Your task to perform on an android device: turn notification dots off Image 0: 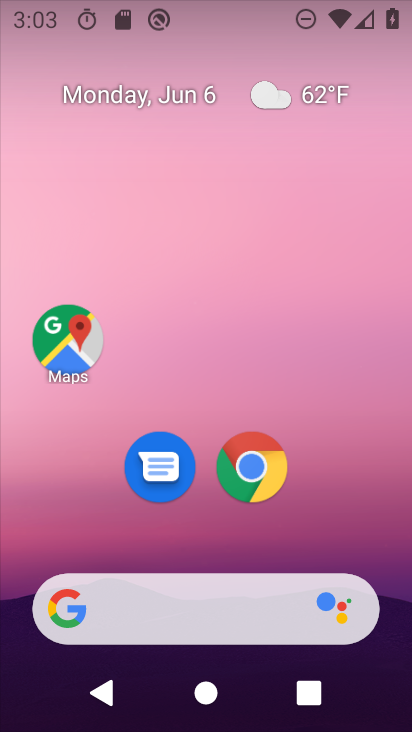
Step 0: drag from (208, 546) to (253, 123)
Your task to perform on an android device: turn notification dots off Image 1: 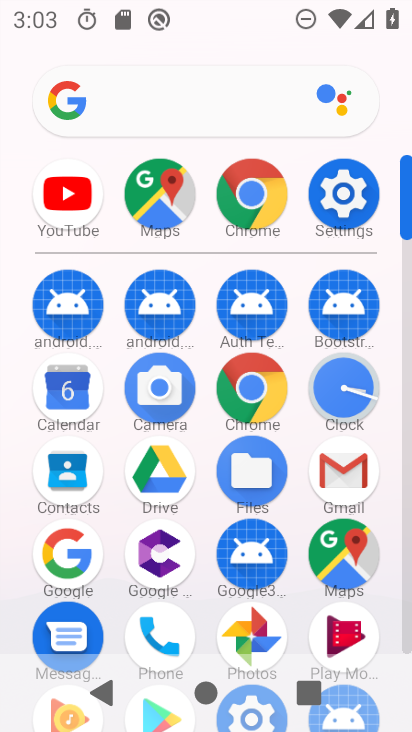
Step 1: click (257, 619)
Your task to perform on an android device: turn notification dots off Image 2: 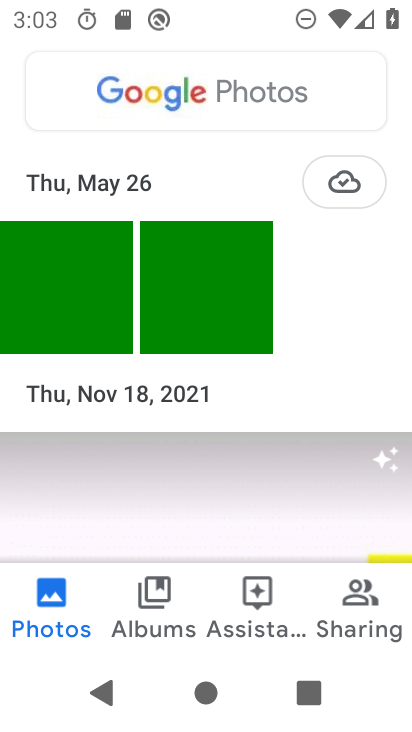
Step 2: press home button
Your task to perform on an android device: turn notification dots off Image 3: 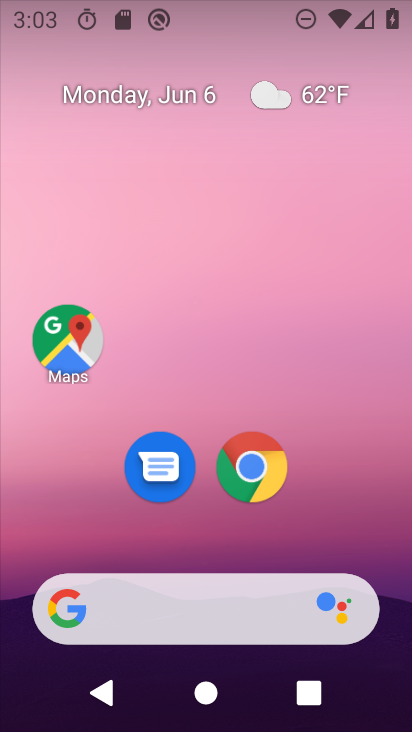
Step 3: drag from (267, 539) to (261, 54)
Your task to perform on an android device: turn notification dots off Image 4: 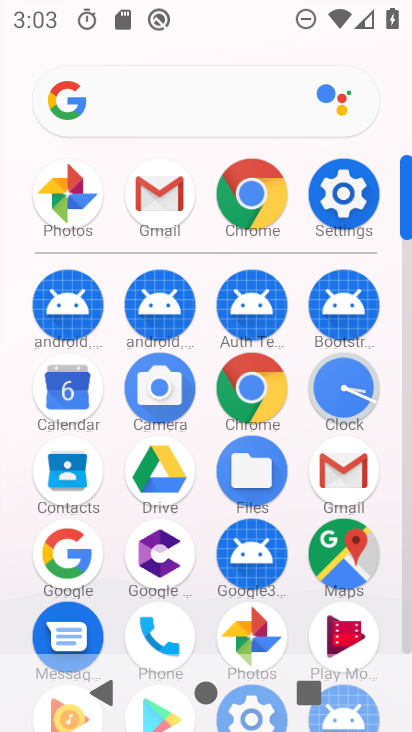
Step 4: click (349, 207)
Your task to perform on an android device: turn notification dots off Image 5: 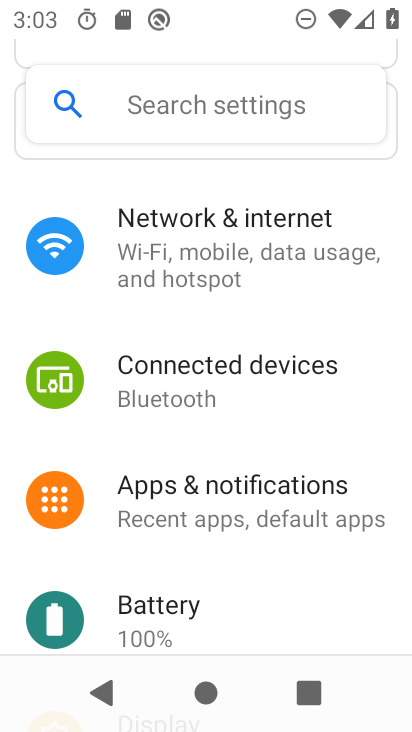
Step 5: click (229, 506)
Your task to perform on an android device: turn notification dots off Image 6: 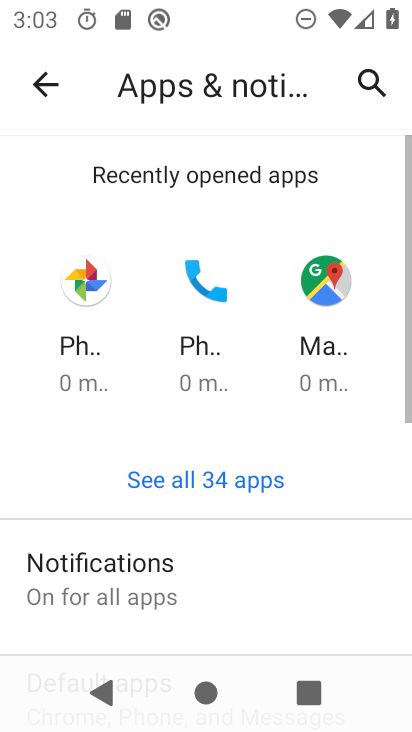
Step 6: drag from (183, 606) to (266, 206)
Your task to perform on an android device: turn notification dots off Image 7: 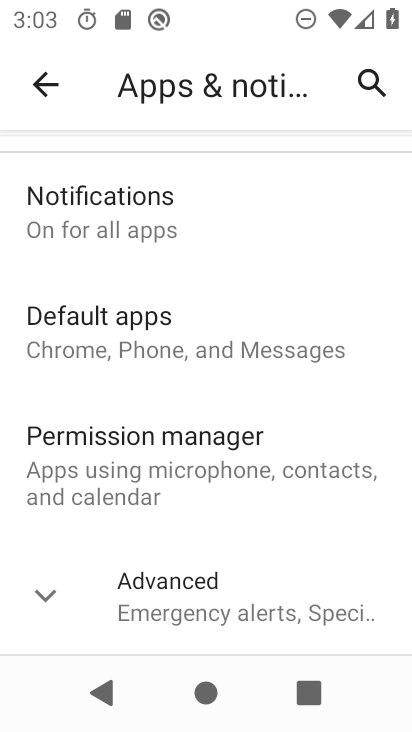
Step 7: click (201, 619)
Your task to perform on an android device: turn notification dots off Image 8: 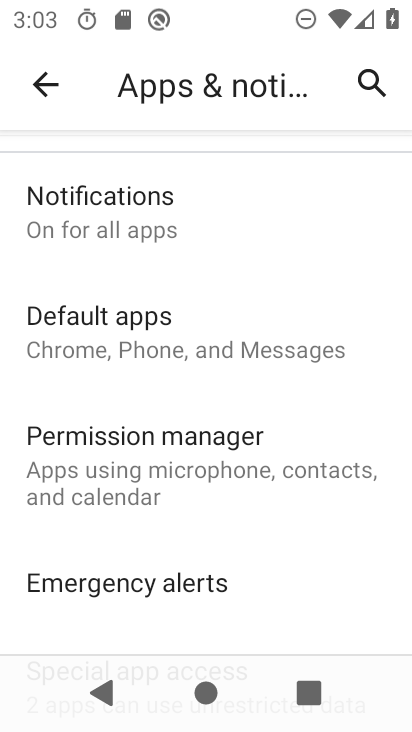
Step 8: drag from (200, 617) to (217, 250)
Your task to perform on an android device: turn notification dots off Image 9: 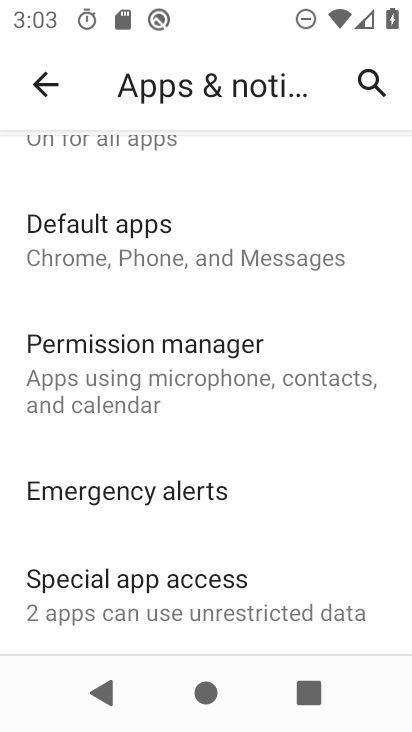
Step 9: drag from (257, 500) to (273, 151)
Your task to perform on an android device: turn notification dots off Image 10: 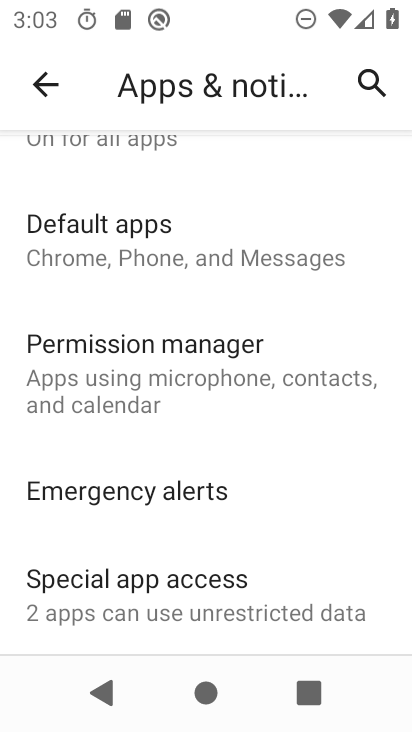
Step 10: drag from (170, 598) to (260, 241)
Your task to perform on an android device: turn notification dots off Image 11: 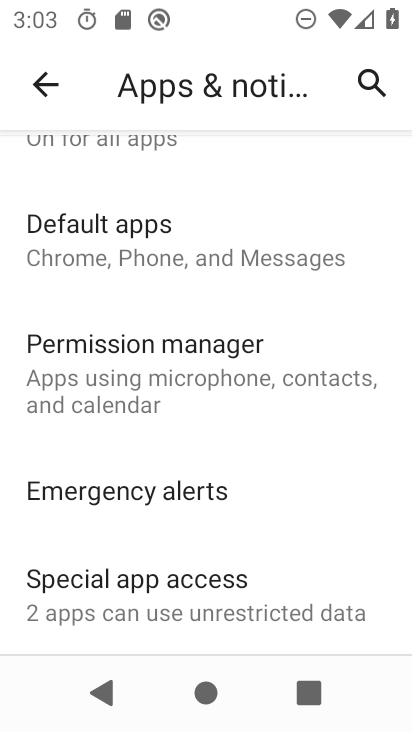
Step 11: drag from (250, 285) to (232, 641)
Your task to perform on an android device: turn notification dots off Image 12: 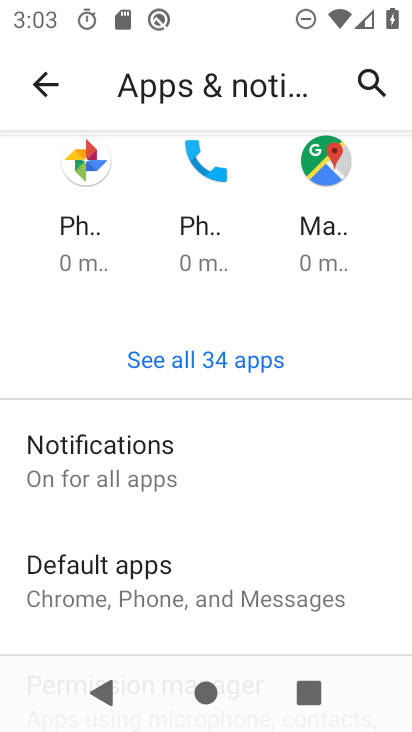
Step 12: click (95, 478)
Your task to perform on an android device: turn notification dots off Image 13: 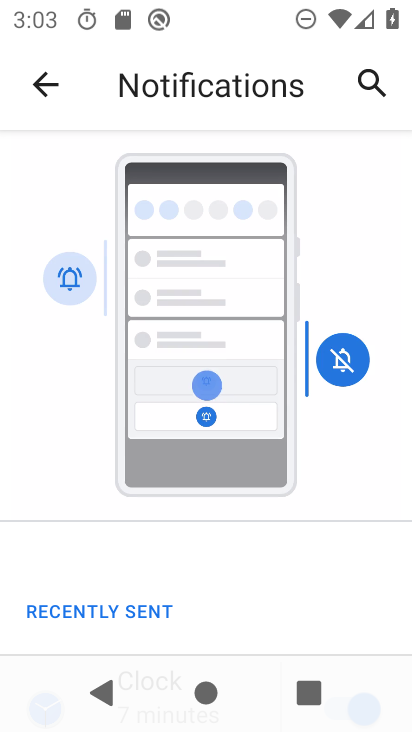
Step 13: drag from (371, 554) to (410, 57)
Your task to perform on an android device: turn notification dots off Image 14: 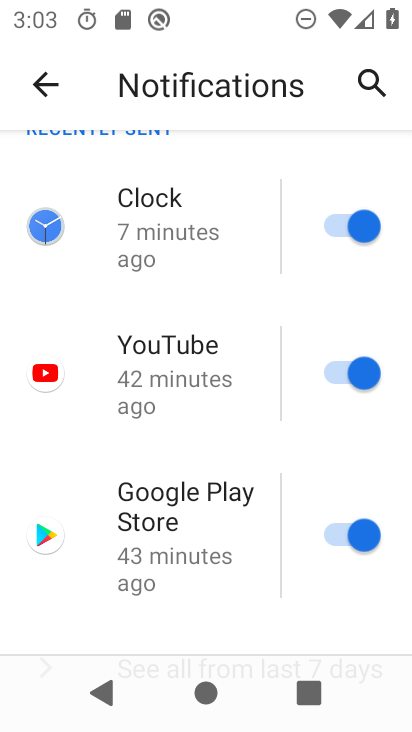
Step 14: drag from (216, 557) to (228, 244)
Your task to perform on an android device: turn notification dots off Image 15: 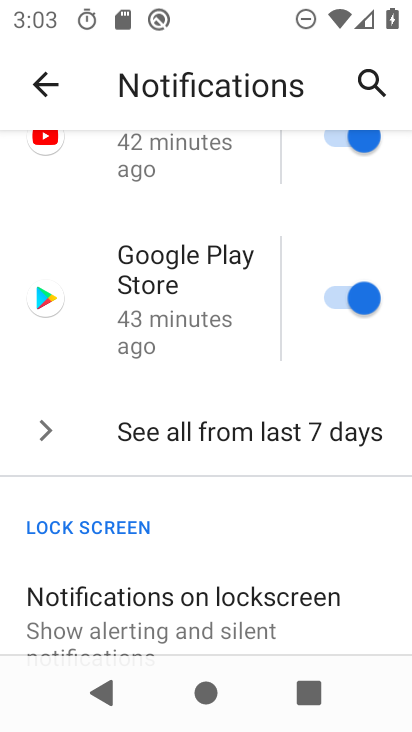
Step 15: drag from (217, 585) to (241, 306)
Your task to perform on an android device: turn notification dots off Image 16: 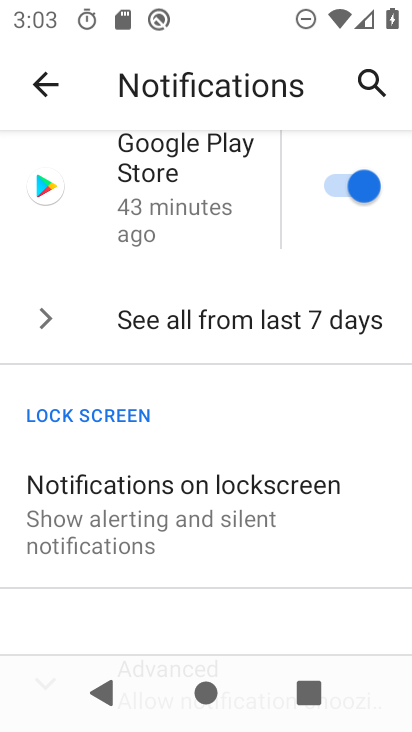
Step 16: drag from (229, 560) to (239, 233)
Your task to perform on an android device: turn notification dots off Image 17: 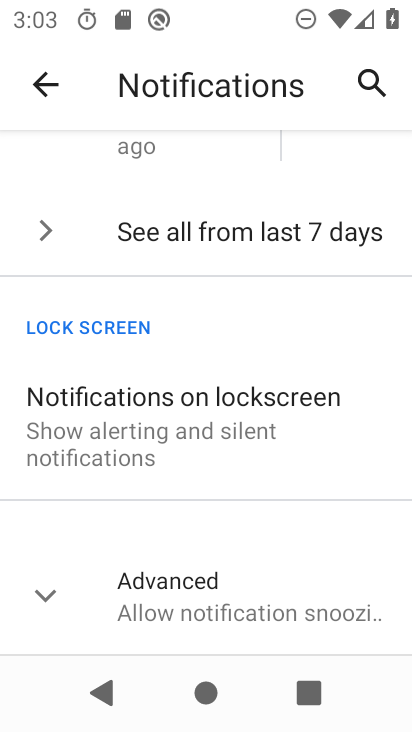
Step 17: click (210, 619)
Your task to perform on an android device: turn notification dots off Image 18: 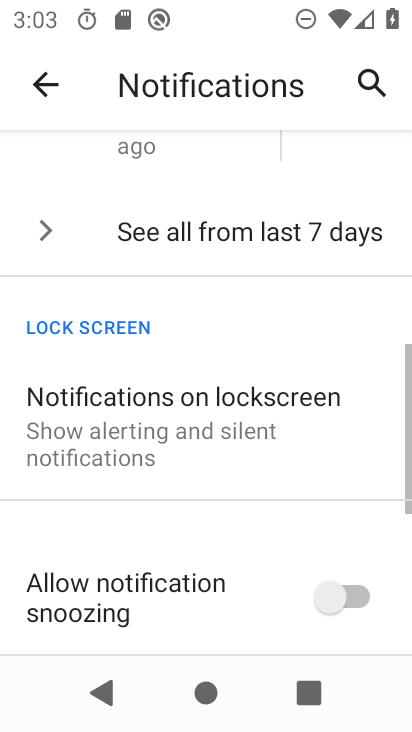
Step 18: drag from (210, 619) to (245, 364)
Your task to perform on an android device: turn notification dots off Image 19: 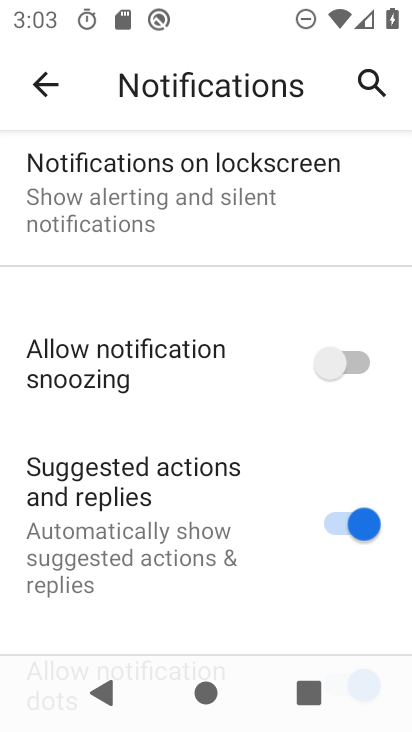
Step 19: drag from (278, 499) to (284, 373)
Your task to perform on an android device: turn notification dots off Image 20: 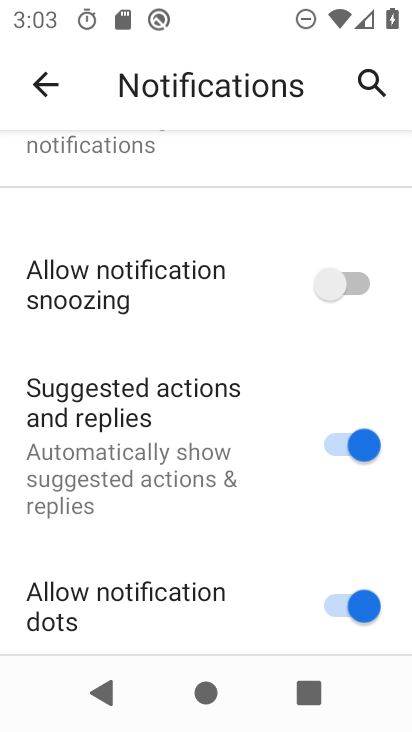
Step 20: click (341, 614)
Your task to perform on an android device: turn notification dots off Image 21: 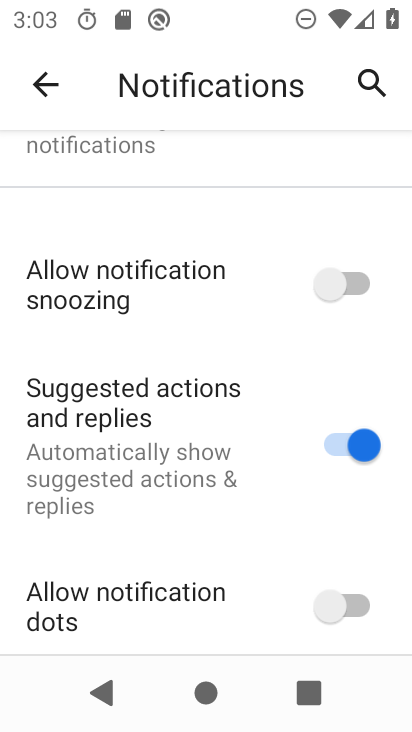
Step 21: task complete